Your task to perform on an android device: set default search engine in the chrome app Image 0: 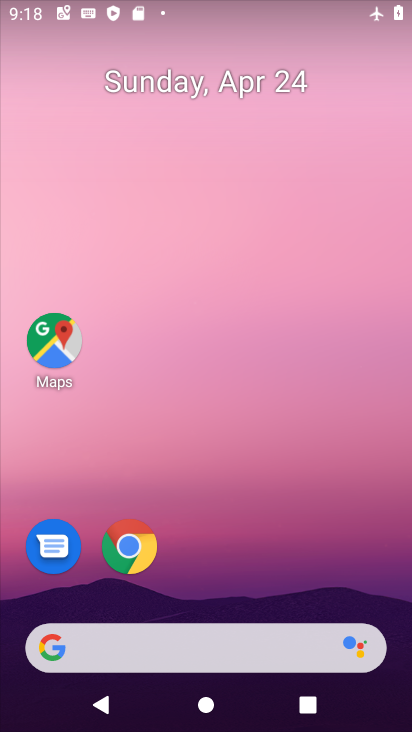
Step 0: click (279, 227)
Your task to perform on an android device: set default search engine in the chrome app Image 1: 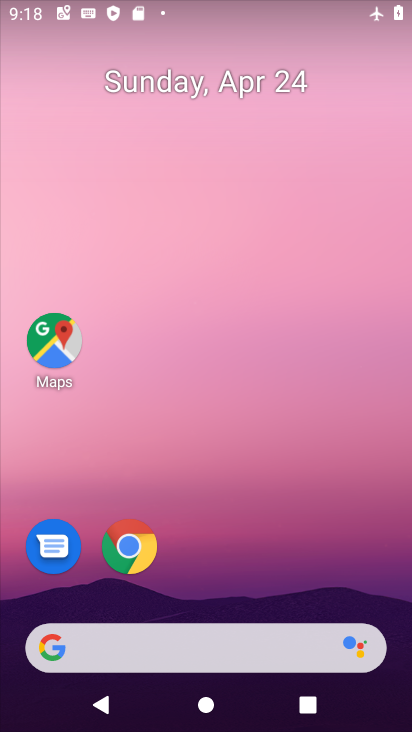
Step 1: drag from (180, 511) to (215, 218)
Your task to perform on an android device: set default search engine in the chrome app Image 2: 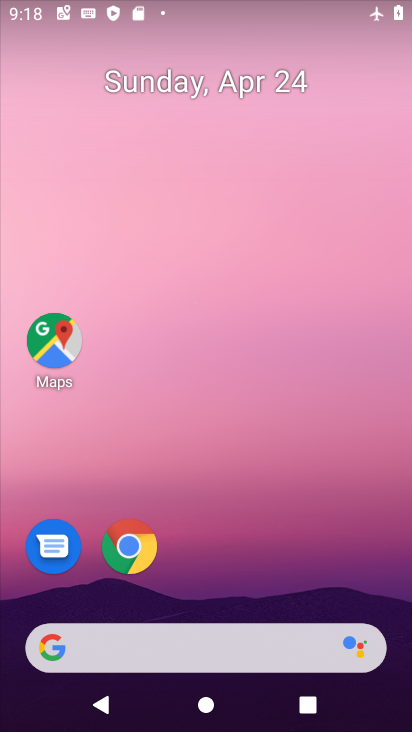
Step 2: drag from (229, 576) to (248, 202)
Your task to perform on an android device: set default search engine in the chrome app Image 3: 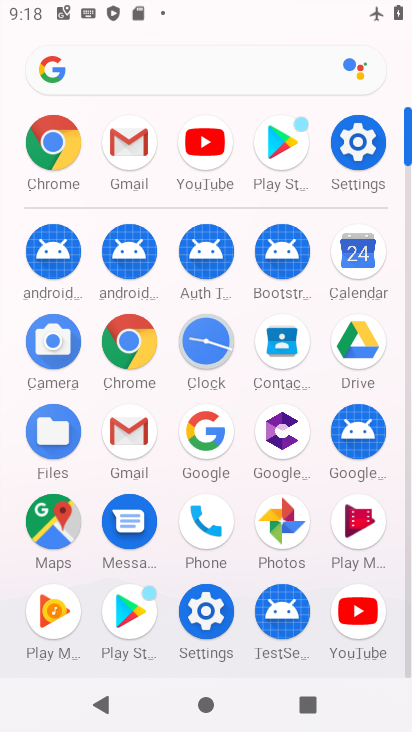
Step 3: click (134, 336)
Your task to perform on an android device: set default search engine in the chrome app Image 4: 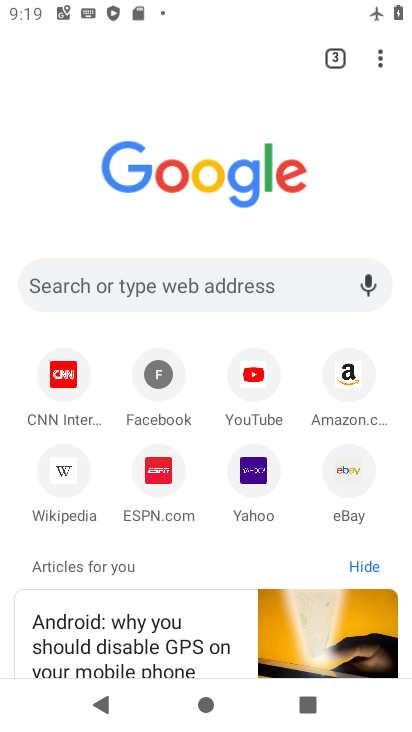
Step 4: click (374, 49)
Your task to perform on an android device: set default search engine in the chrome app Image 5: 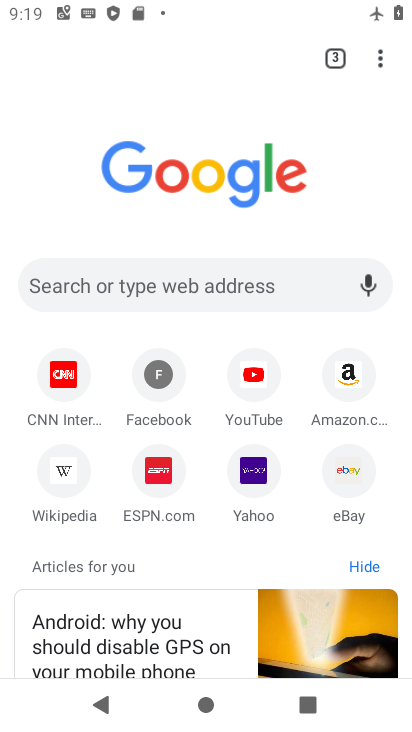
Step 5: click (371, 64)
Your task to perform on an android device: set default search engine in the chrome app Image 6: 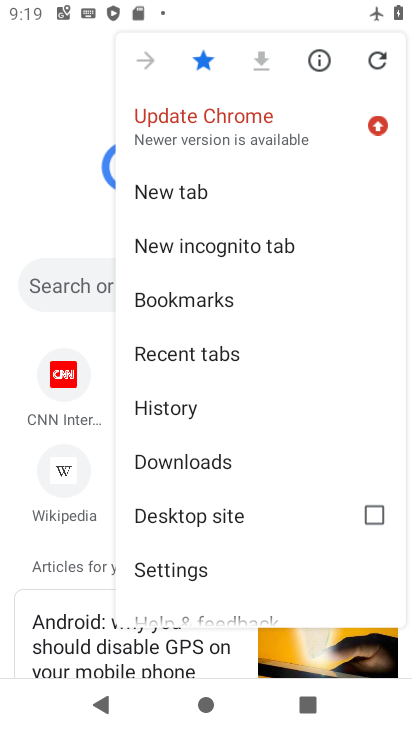
Step 6: click (212, 569)
Your task to perform on an android device: set default search engine in the chrome app Image 7: 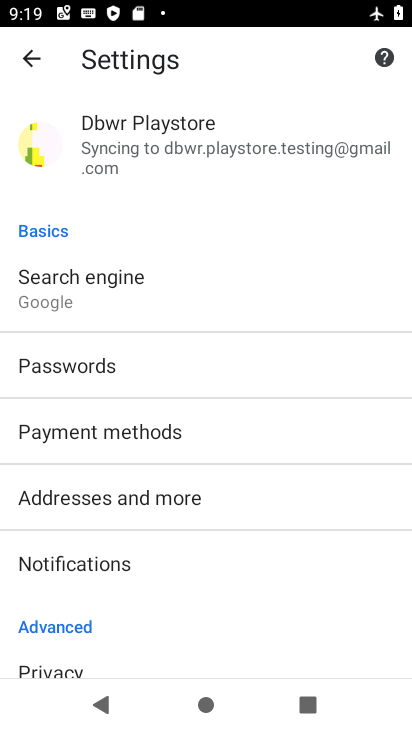
Step 7: click (155, 302)
Your task to perform on an android device: set default search engine in the chrome app Image 8: 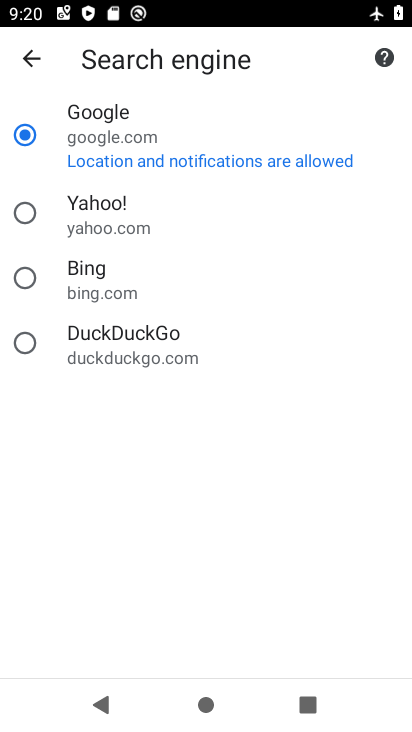
Step 8: click (78, 249)
Your task to perform on an android device: set default search engine in the chrome app Image 9: 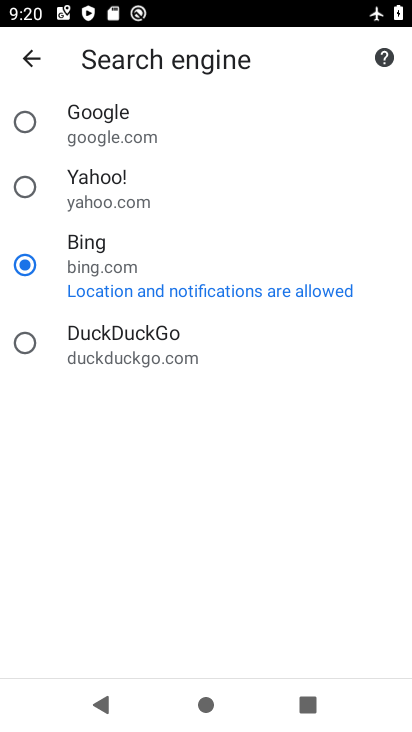
Step 9: task complete